Your task to perform on an android device: Open the phone app and click the voicemail tab. Image 0: 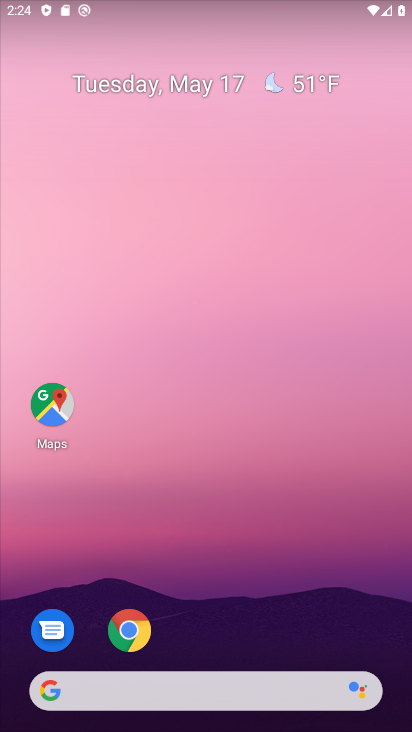
Step 0: drag from (257, 618) to (357, 31)
Your task to perform on an android device: Open the phone app and click the voicemail tab. Image 1: 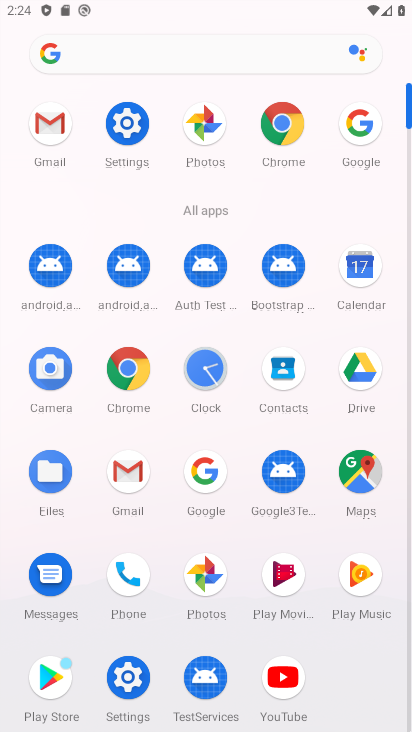
Step 1: click (131, 581)
Your task to perform on an android device: Open the phone app and click the voicemail tab. Image 2: 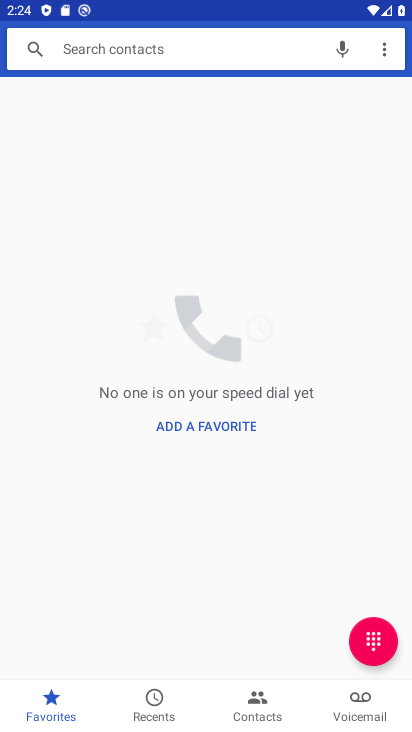
Step 2: click (363, 710)
Your task to perform on an android device: Open the phone app and click the voicemail tab. Image 3: 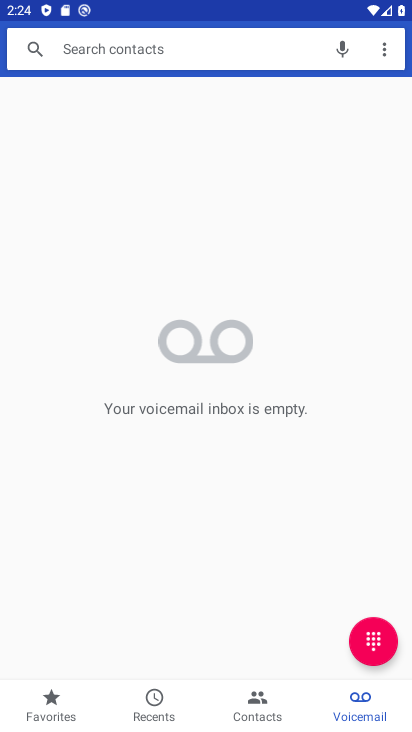
Step 3: task complete